Your task to perform on an android device: Go to accessibility settings Image 0: 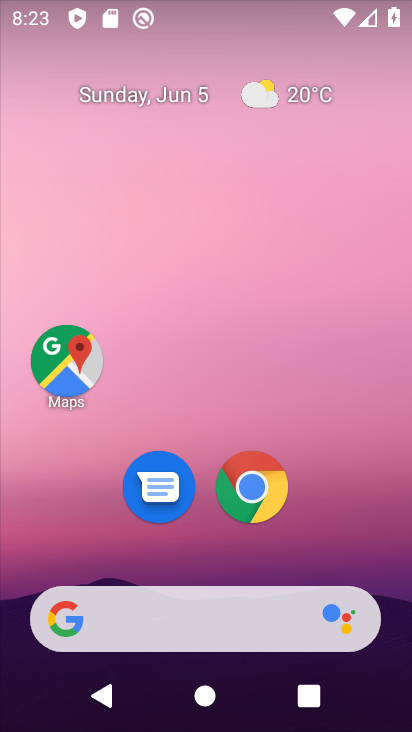
Step 0: drag from (265, 546) to (276, 198)
Your task to perform on an android device: Go to accessibility settings Image 1: 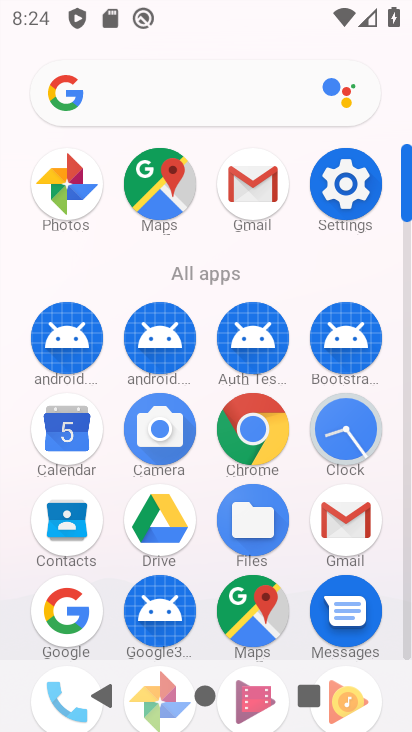
Step 1: click (340, 190)
Your task to perform on an android device: Go to accessibility settings Image 2: 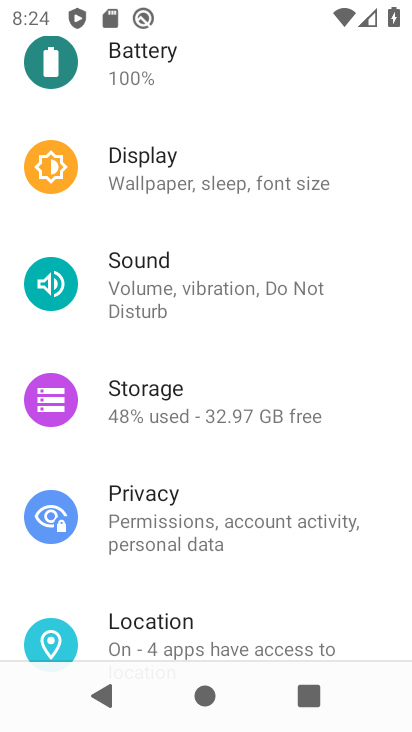
Step 2: drag from (209, 544) to (243, 240)
Your task to perform on an android device: Go to accessibility settings Image 3: 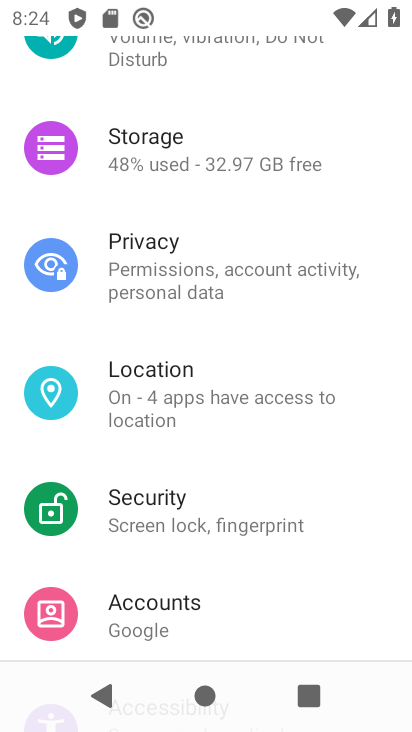
Step 3: drag from (210, 466) to (246, 237)
Your task to perform on an android device: Go to accessibility settings Image 4: 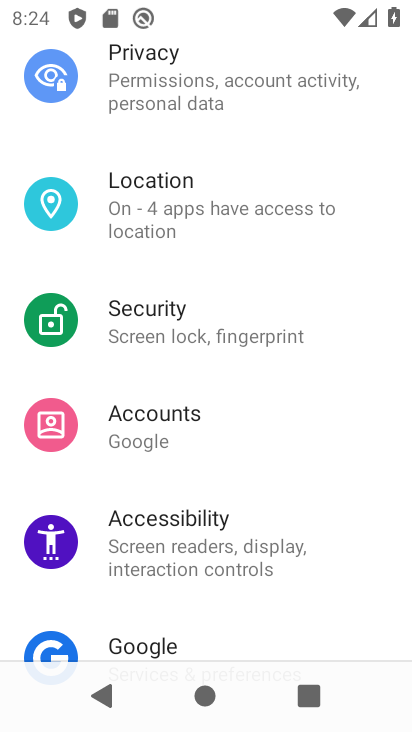
Step 4: click (229, 544)
Your task to perform on an android device: Go to accessibility settings Image 5: 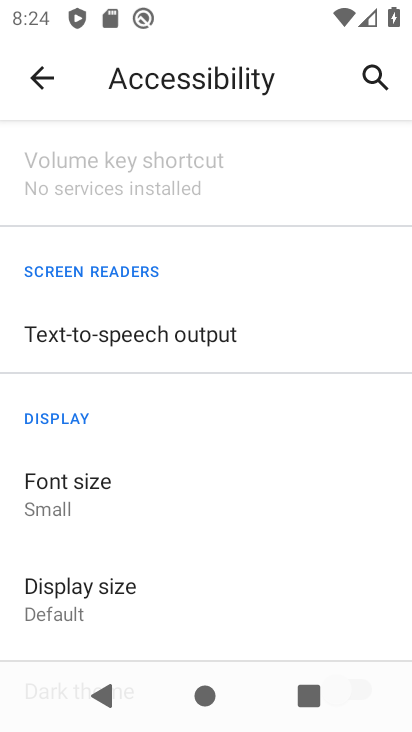
Step 5: task complete